Your task to perform on an android device: Find coffee shops on Maps Image 0: 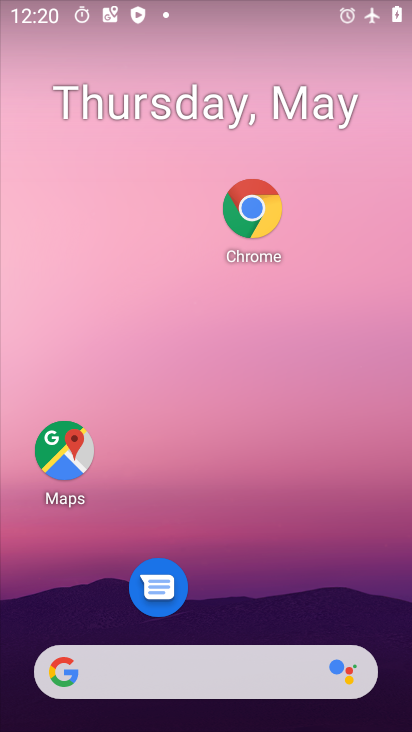
Step 0: click (73, 464)
Your task to perform on an android device: Find coffee shops on Maps Image 1: 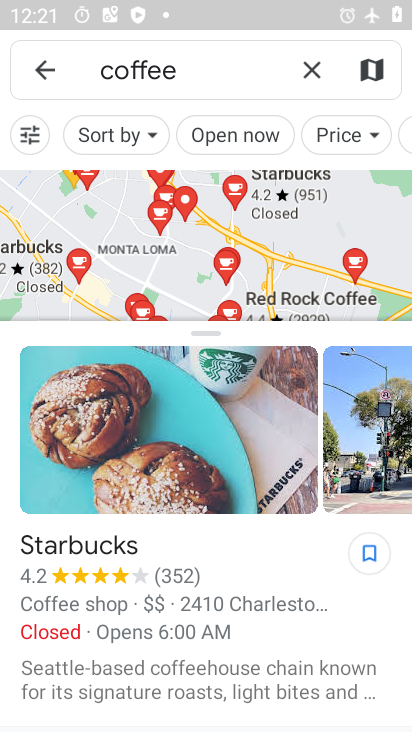
Step 1: task complete